Your task to perform on an android device: turn on sleep mode Image 0: 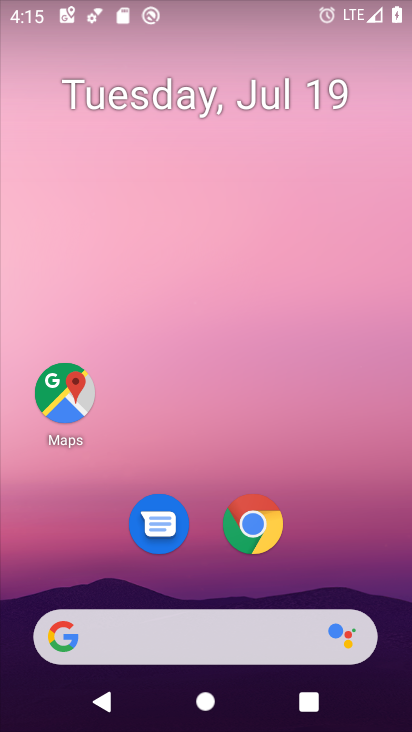
Step 0: drag from (342, 503) to (279, 83)
Your task to perform on an android device: turn on sleep mode Image 1: 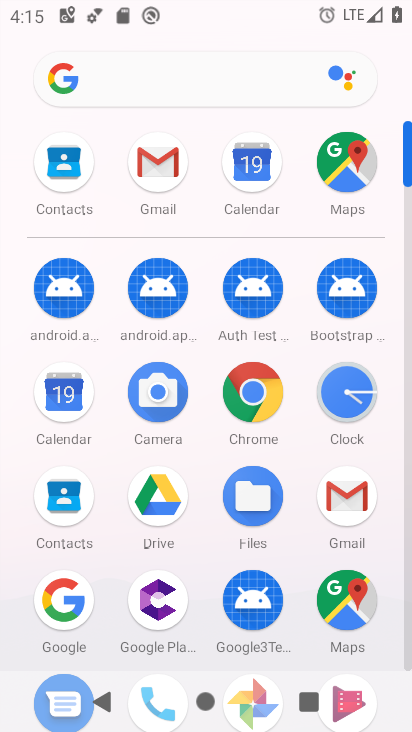
Step 1: drag from (198, 535) to (214, 343)
Your task to perform on an android device: turn on sleep mode Image 2: 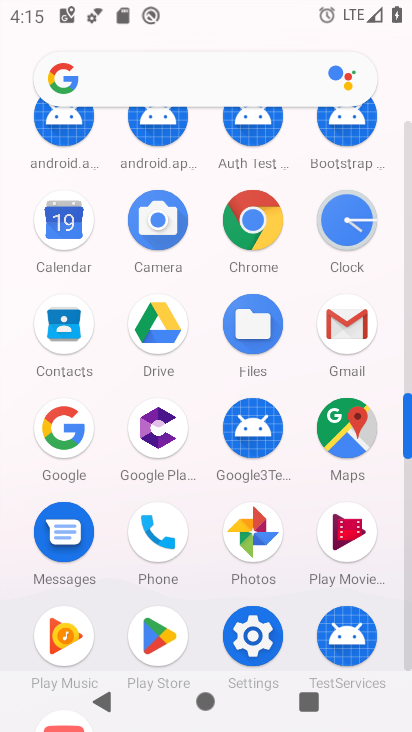
Step 2: drag from (218, 162) to (221, 389)
Your task to perform on an android device: turn on sleep mode Image 3: 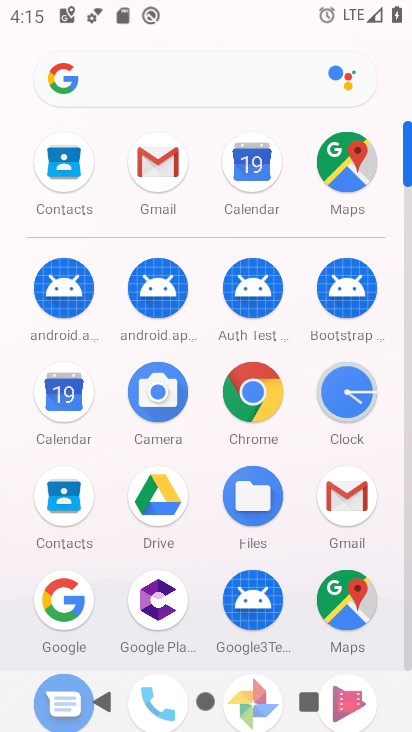
Step 3: drag from (223, 486) to (223, 216)
Your task to perform on an android device: turn on sleep mode Image 4: 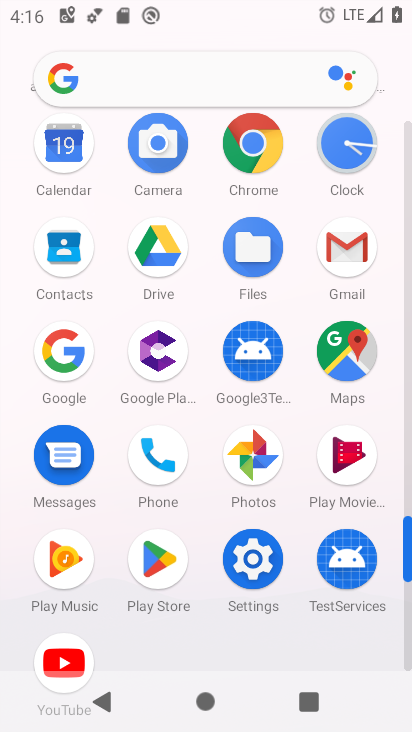
Step 4: click (250, 556)
Your task to perform on an android device: turn on sleep mode Image 5: 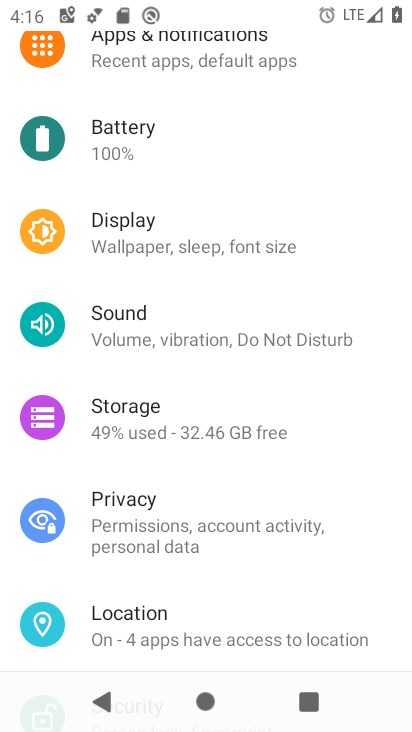
Step 5: click (218, 233)
Your task to perform on an android device: turn on sleep mode Image 6: 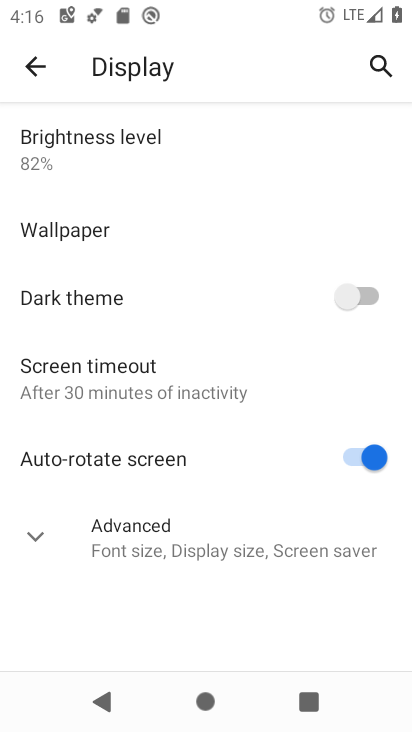
Step 6: click (33, 540)
Your task to perform on an android device: turn on sleep mode Image 7: 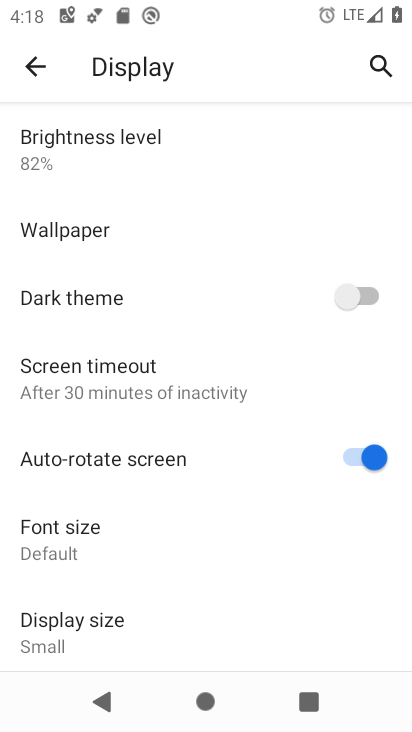
Step 7: task complete